Your task to perform on an android device: When is my next appointment? Image 0: 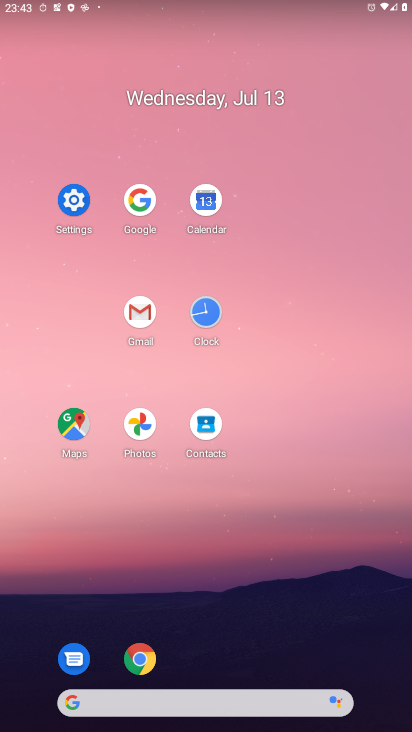
Step 0: click (206, 191)
Your task to perform on an android device: When is my next appointment? Image 1: 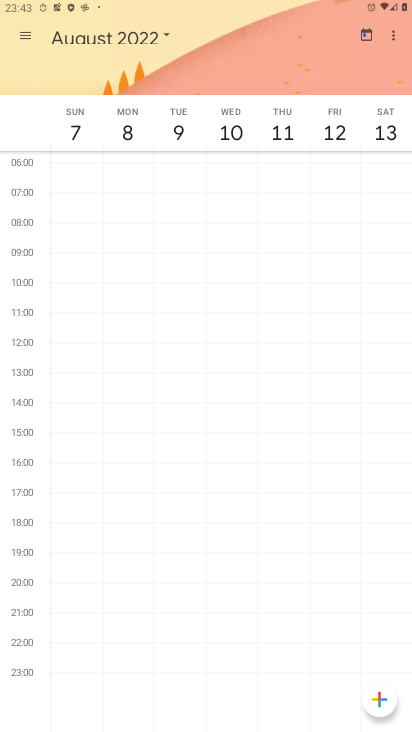
Step 1: click (103, 38)
Your task to perform on an android device: When is my next appointment? Image 2: 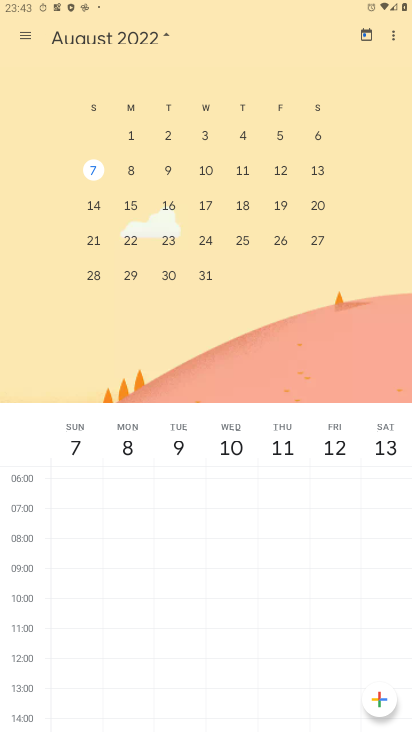
Step 2: drag from (100, 157) to (391, 189)
Your task to perform on an android device: When is my next appointment? Image 3: 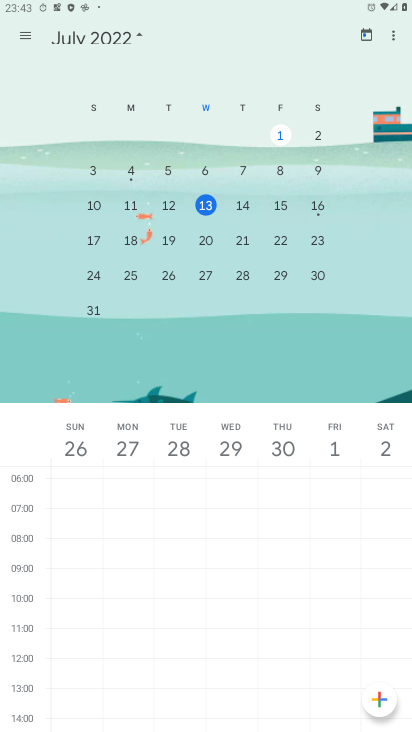
Step 3: click (241, 202)
Your task to perform on an android device: When is my next appointment? Image 4: 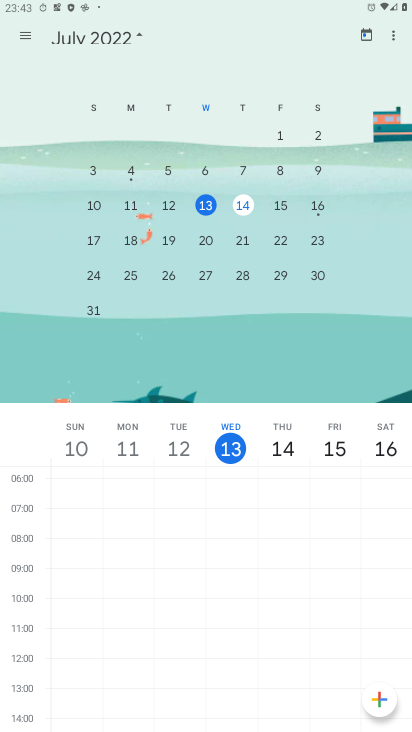
Step 4: click (292, 445)
Your task to perform on an android device: When is my next appointment? Image 5: 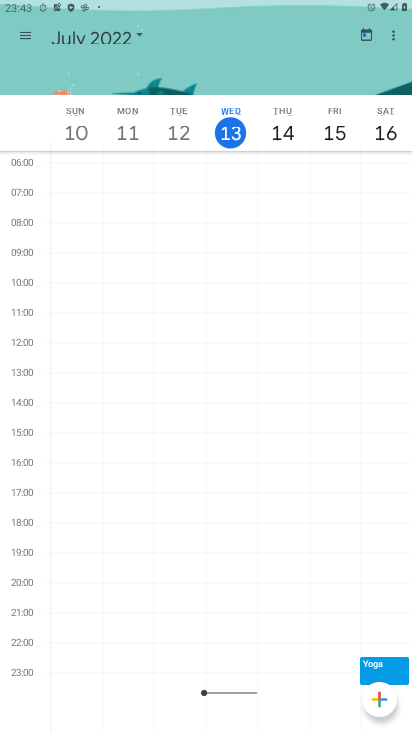
Step 5: task complete